Your task to perform on an android device: change notifications settings Image 0: 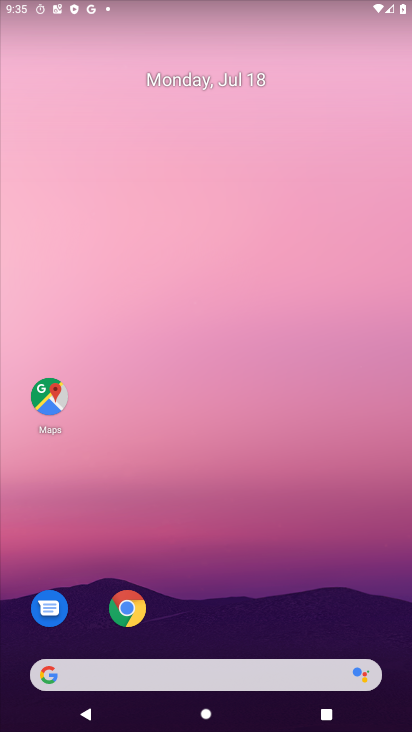
Step 0: drag from (218, 573) to (217, 210)
Your task to perform on an android device: change notifications settings Image 1: 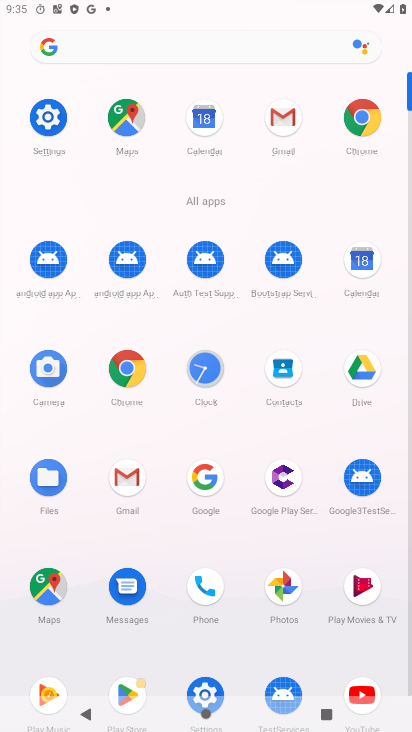
Step 1: click (45, 117)
Your task to perform on an android device: change notifications settings Image 2: 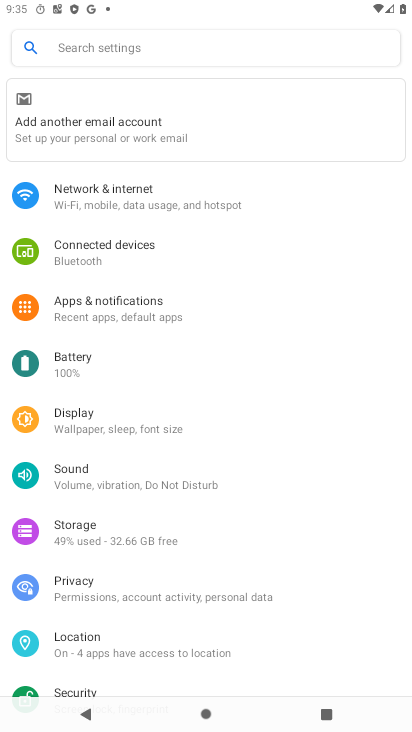
Step 2: click (122, 320)
Your task to perform on an android device: change notifications settings Image 3: 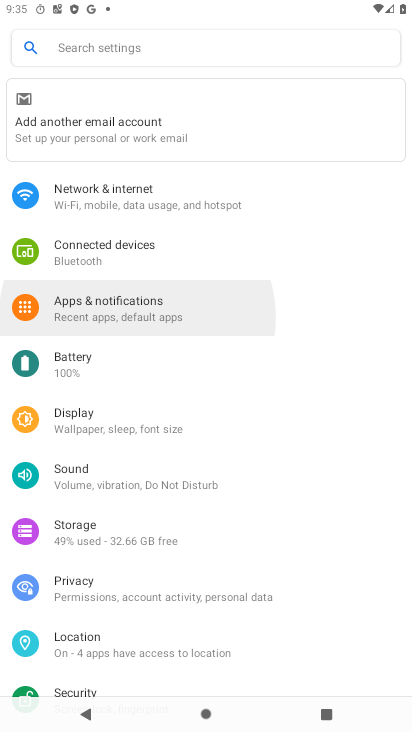
Step 3: click (122, 320)
Your task to perform on an android device: change notifications settings Image 4: 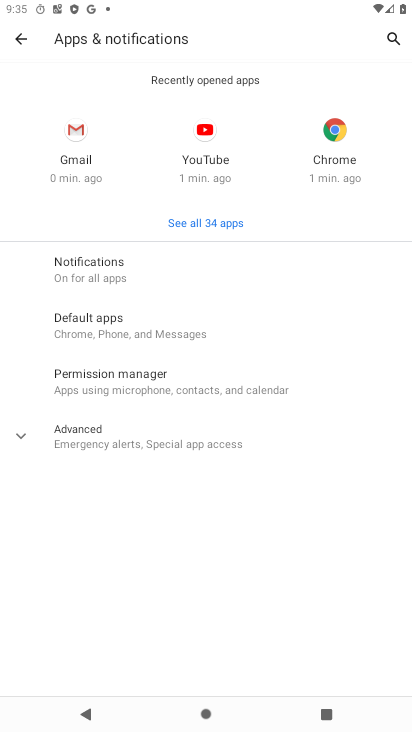
Step 4: click (94, 275)
Your task to perform on an android device: change notifications settings Image 5: 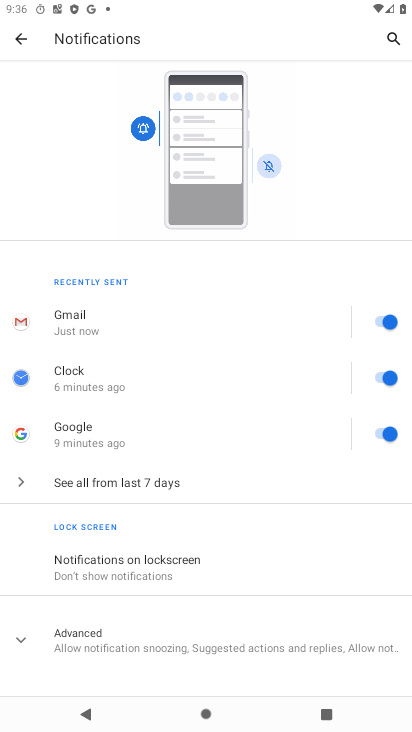
Step 5: click (198, 557)
Your task to perform on an android device: change notifications settings Image 6: 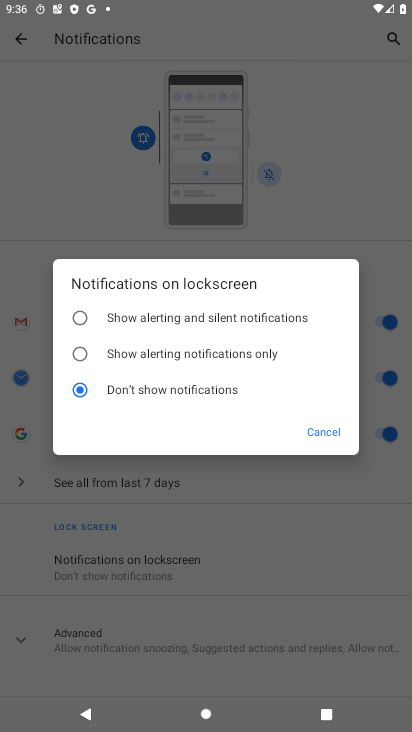
Step 6: click (82, 319)
Your task to perform on an android device: change notifications settings Image 7: 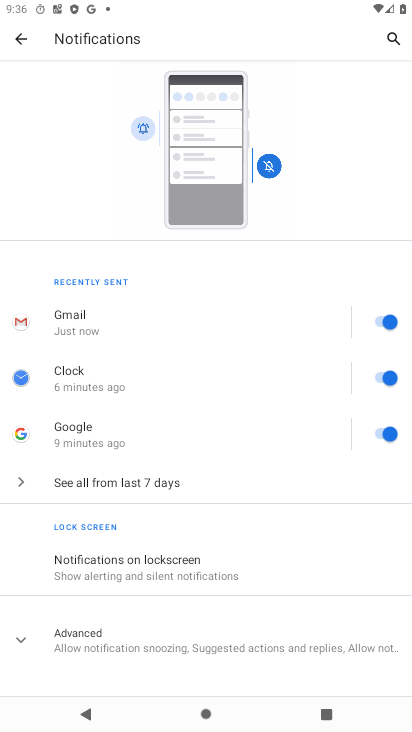
Step 7: task complete